Your task to perform on an android device: Go to Amazon Image 0: 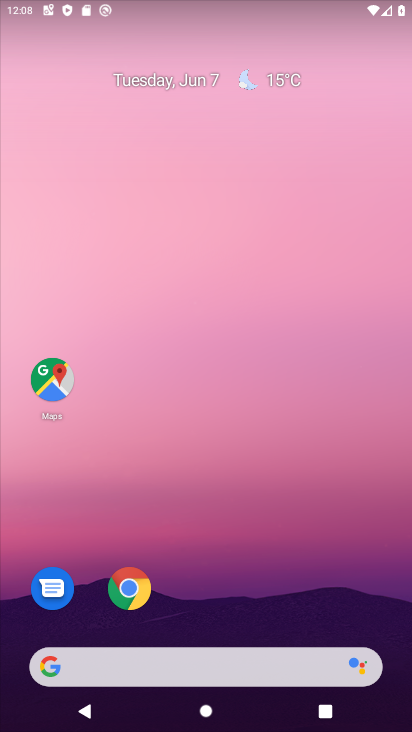
Step 0: click (131, 580)
Your task to perform on an android device: Go to Amazon Image 1: 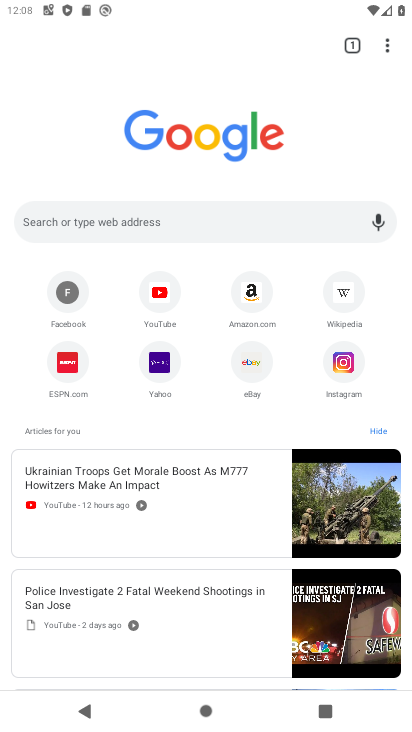
Step 1: click (257, 290)
Your task to perform on an android device: Go to Amazon Image 2: 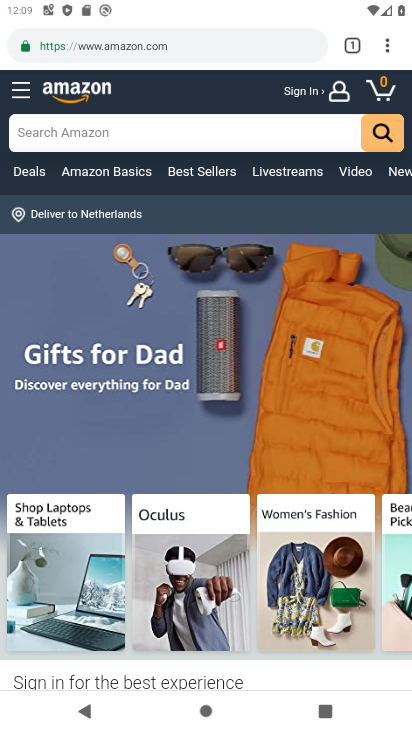
Step 2: task complete